Your task to perform on an android device: Open internet settings Image 0: 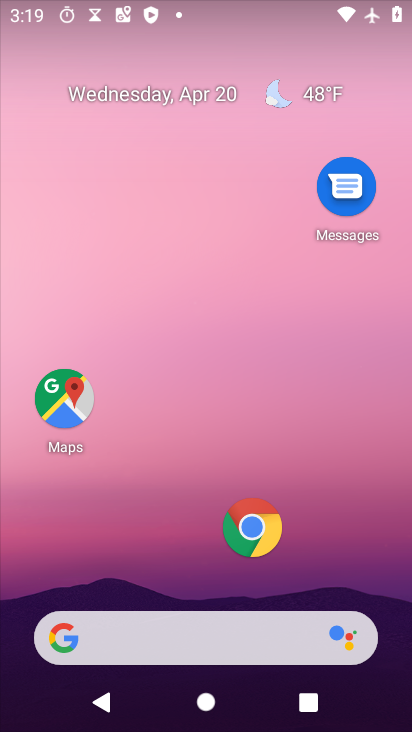
Step 0: drag from (137, 617) to (277, 34)
Your task to perform on an android device: Open internet settings Image 1: 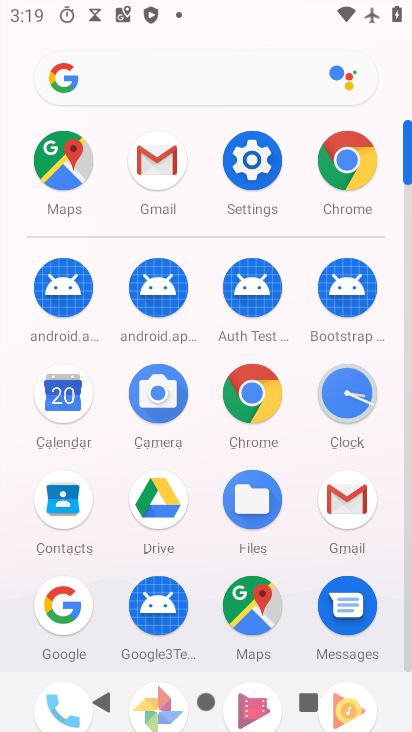
Step 1: click (258, 173)
Your task to perform on an android device: Open internet settings Image 2: 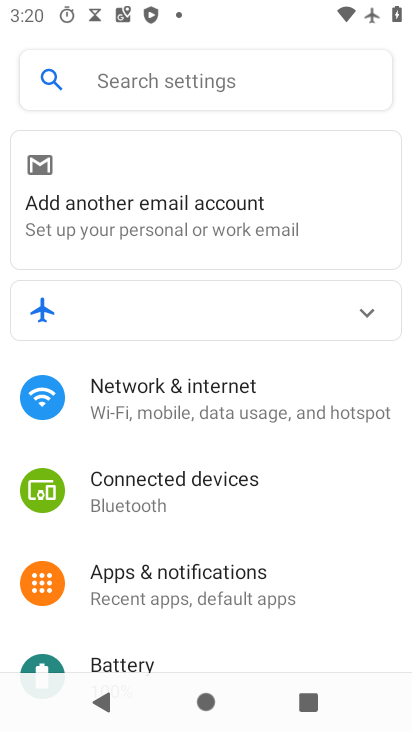
Step 2: click (222, 396)
Your task to perform on an android device: Open internet settings Image 3: 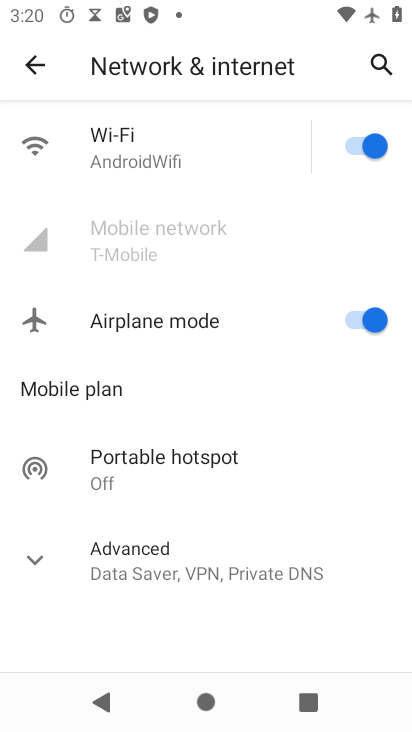
Step 3: task complete